Your task to perform on an android device: Open Google Chrome and open the bookmarks view Image 0: 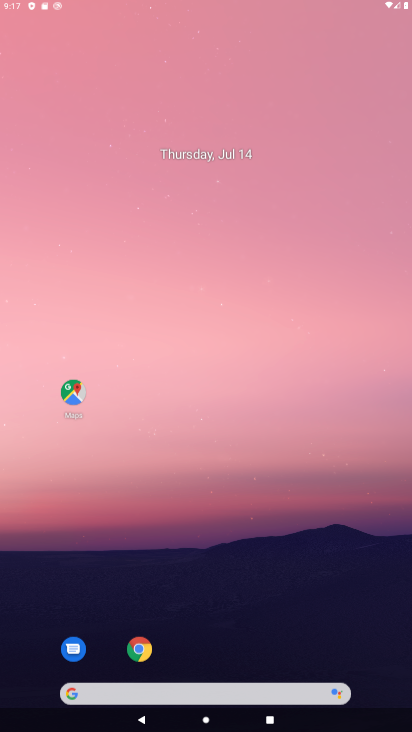
Step 0: click (184, 188)
Your task to perform on an android device: Open Google Chrome and open the bookmarks view Image 1: 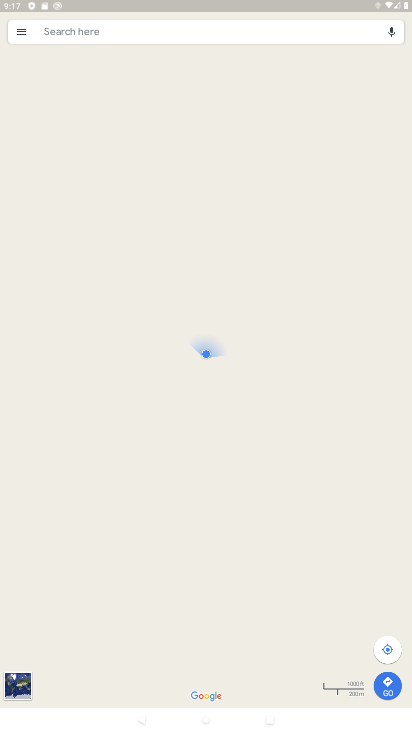
Step 1: press home button
Your task to perform on an android device: Open Google Chrome and open the bookmarks view Image 2: 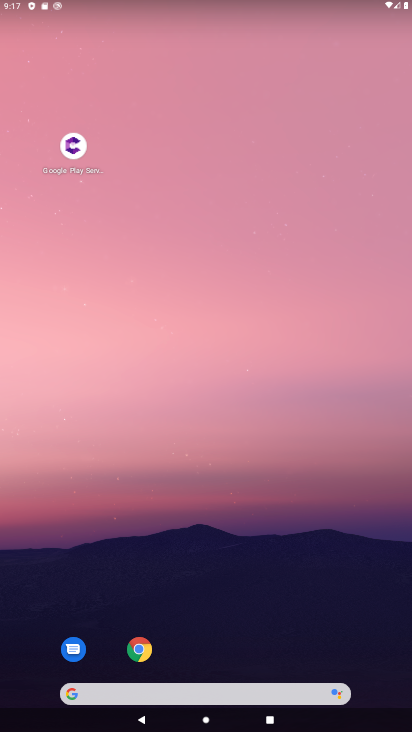
Step 2: click (140, 655)
Your task to perform on an android device: Open Google Chrome and open the bookmarks view Image 3: 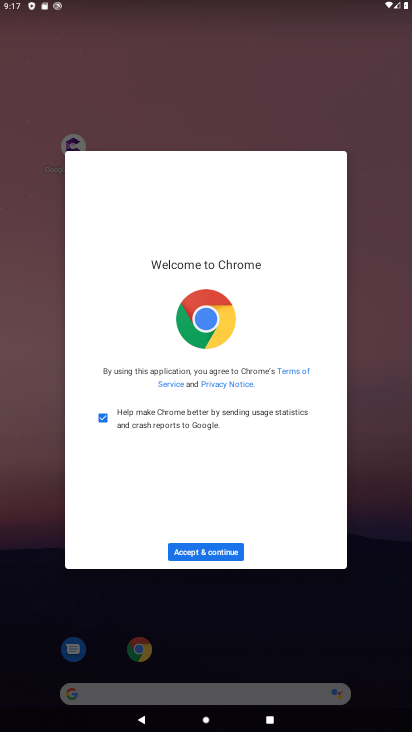
Step 3: click (186, 555)
Your task to perform on an android device: Open Google Chrome and open the bookmarks view Image 4: 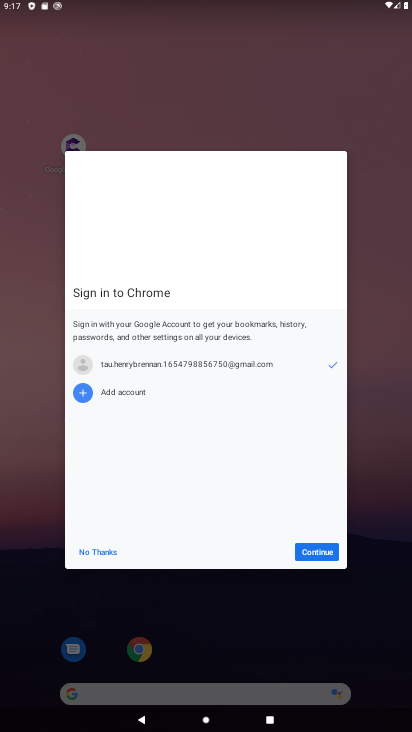
Step 4: click (322, 552)
Your task to perform on an android device: Open Google Chrome and open the bookmarks view Image 5: 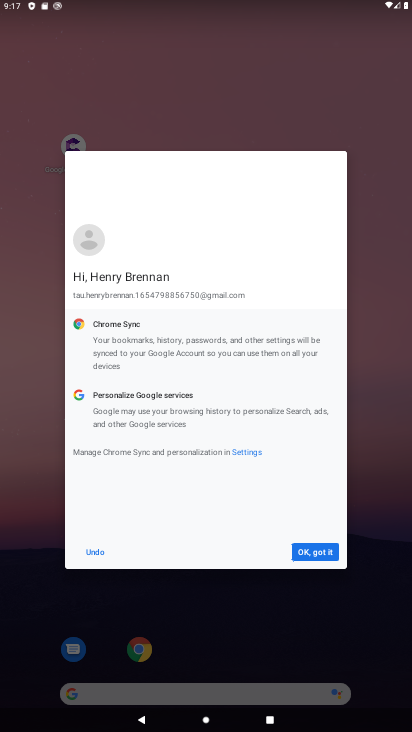
Step 5: click (322, 552)
Your task to perform on an android device: Open Google Chrome and open the bookmarks view Image 6: 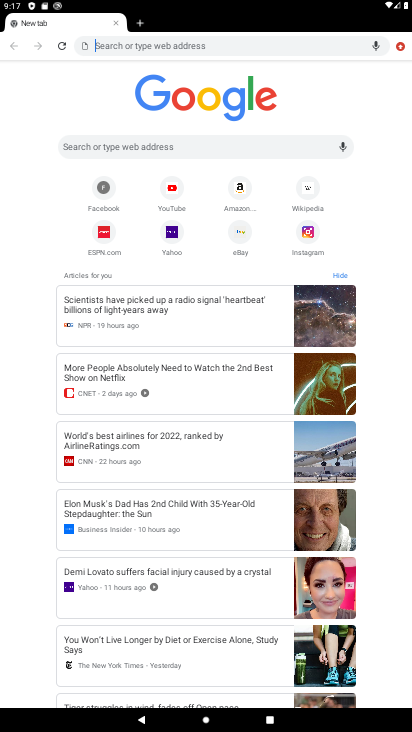
Step 6: click (399, 48)
Your task to perform on an android device: Open Google Chrome and open the bookmarks view Image 7: 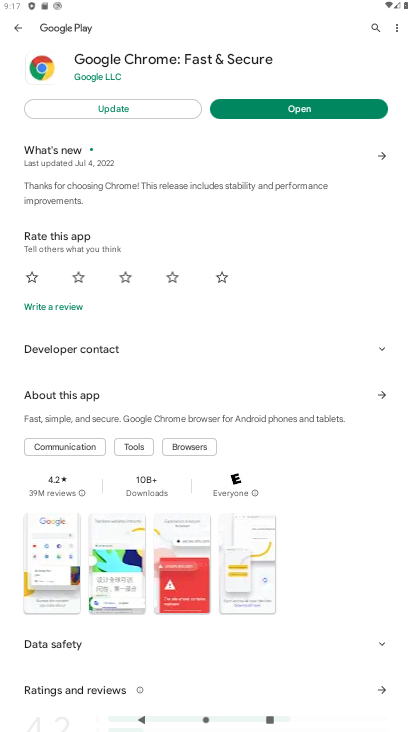
Step 7: press back button
Your task to perform on an android device: Open Google Chrome and open the bookmarks view Image 8: 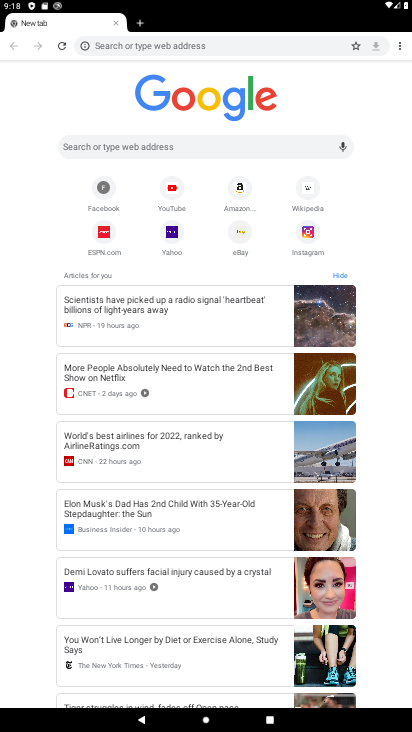
Step 8: click (400, 48)
Your task to perform on an android device: Open Google Chrome and open the bookmarks view Image 9: 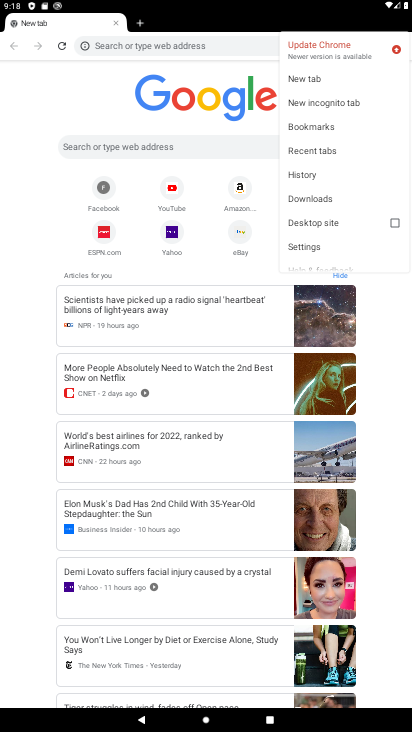
Step 9: click (301, 127)
Your task to perform on an android device: Open Google Chrome and open the bookmarks view Image 10: 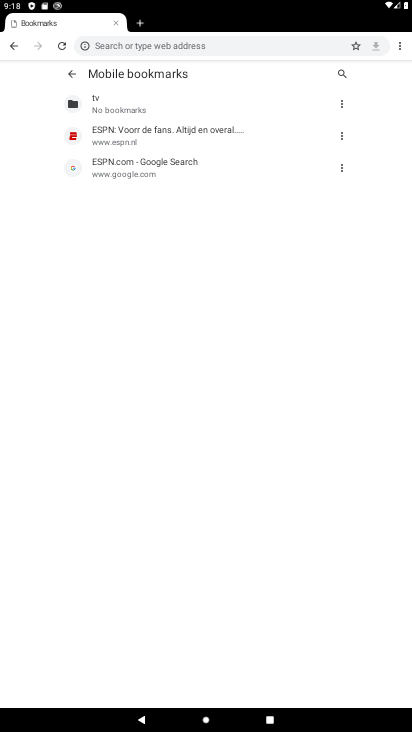
Step 10: task complete